Your task to perform on an android device: Do I have any events this weekend? Image 0: 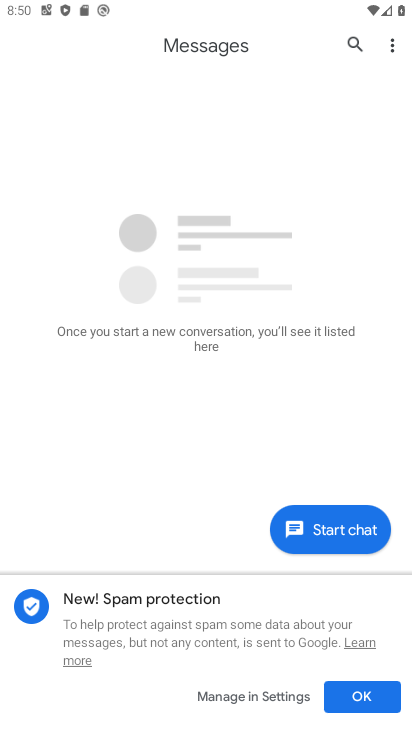
Step 0: press home button
Your task to perform on an android device: Do I have any events this weekend? Image 1: 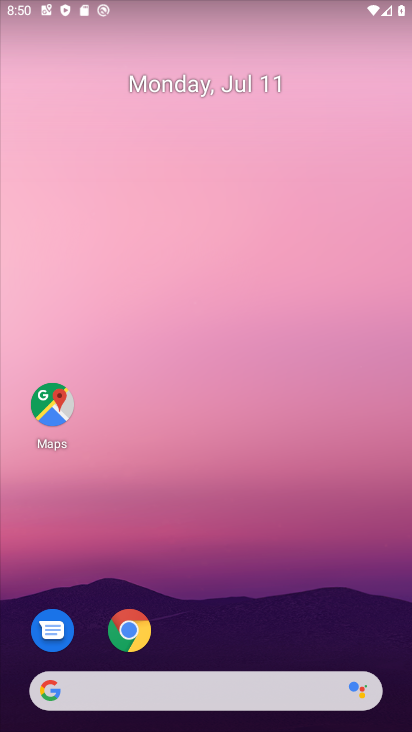
Step 1: drag from (210, 648) to (271, 61)
Your task to perform on an android device: Do I have any events this weekend? Image 2: 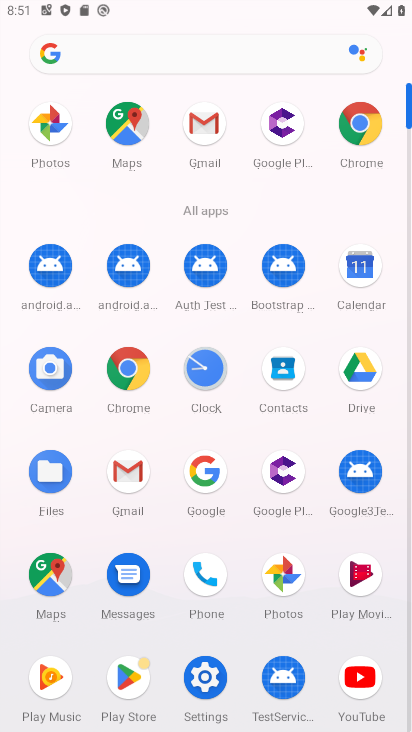
Step 2: click (360, 259)
Your task to perform on an android device: Do I have any events this weekend? Image 3: 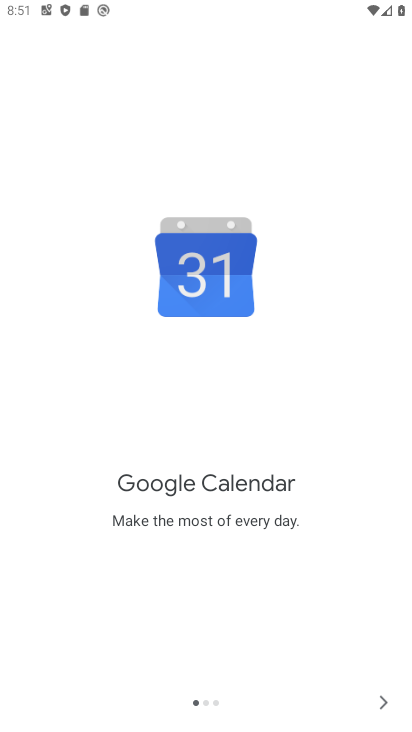
Step 3: click (380, 706)
Your task to perform on an android device: Do I have any events this weekend? Image 4: 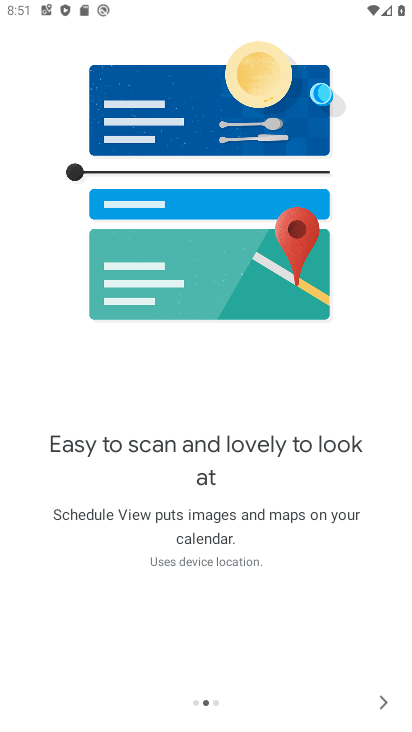
Step 4: click (380, 706)
Your task to perform on an android device: Do I have any events this weekend? Image 5: 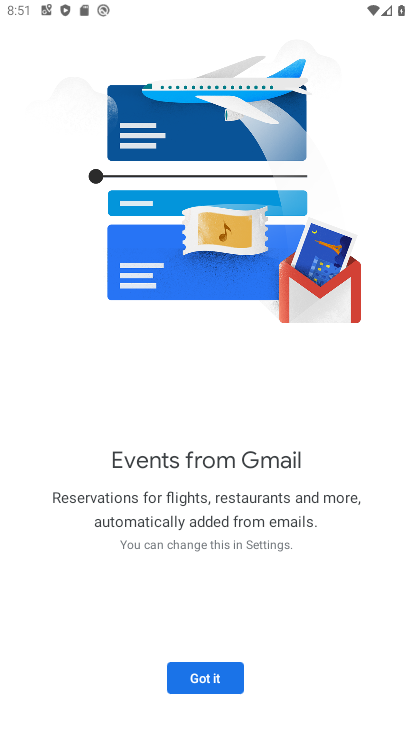
Step 5: click (219, 693)
Your task to perform on an android device: Do I have any events this weekend? Image 6: 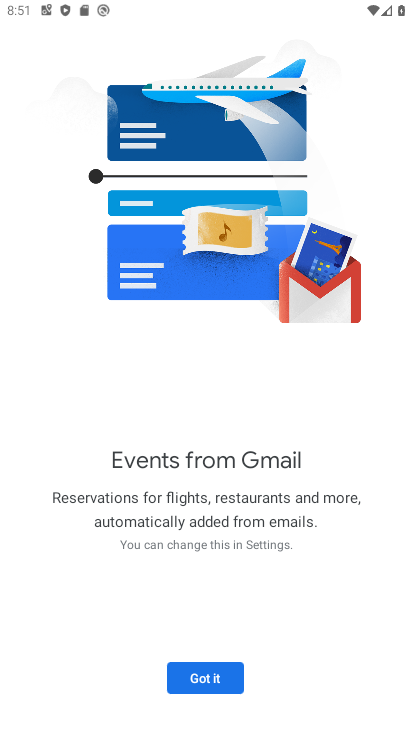
Step 6: click (215, 683)
Your task to perform on an android device: Do I have any events this weekend? Image 7: 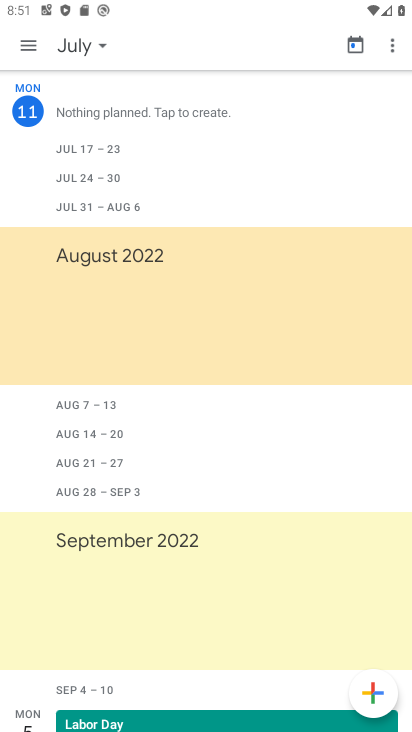
Step 7: click (35, 38)
Your task to perform on an android device: Do I have any events this weekend? Image 8: 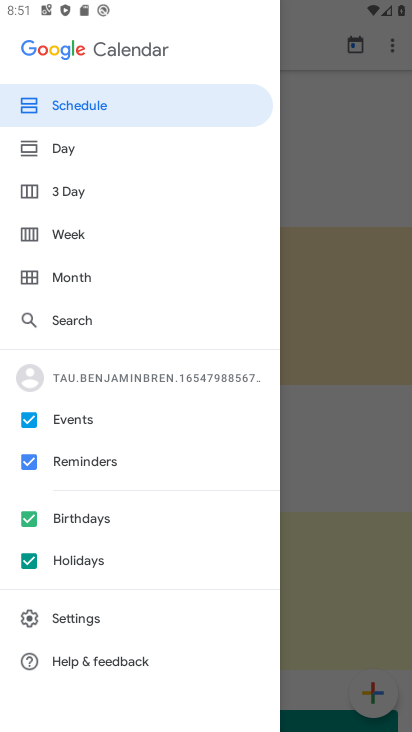
Step 8: click (58, 232)
Your task to perform on an android device: Do I have any events this weekend? Image 9: 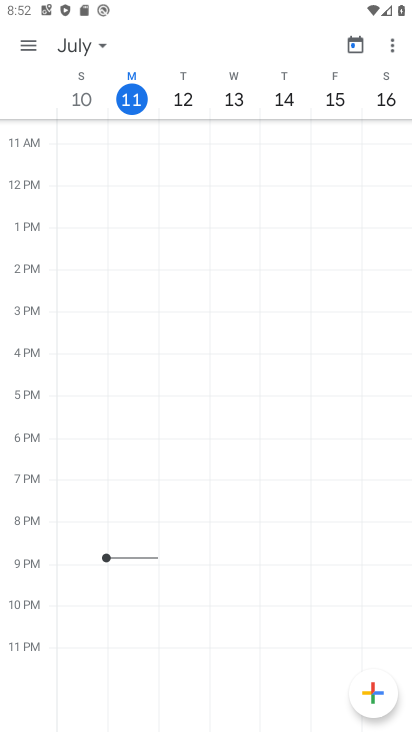
Step 9: click (137, 101)
Your task to perform on an android device: Do I have any events this weekend? Image 10: 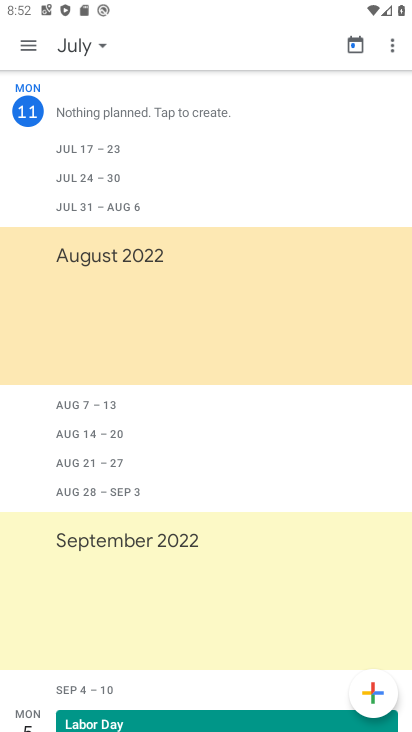
Step 10: task complete